Your task to perform on an android device: delete a single message in the gmail app Image 0: 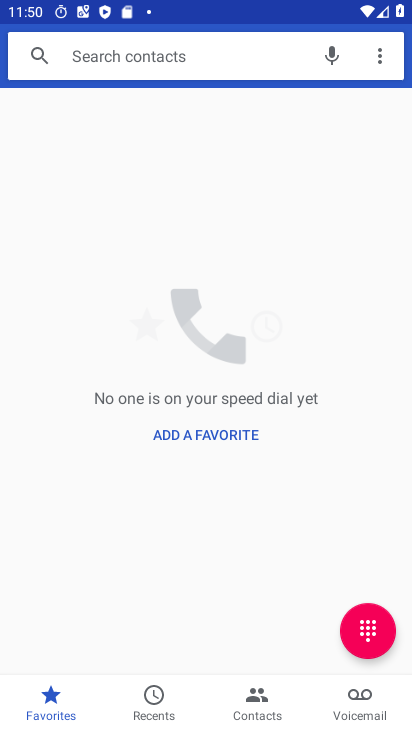
Step 0: press home button
Your task to perform on an android device: delete a single message in the gmail app Image 1: 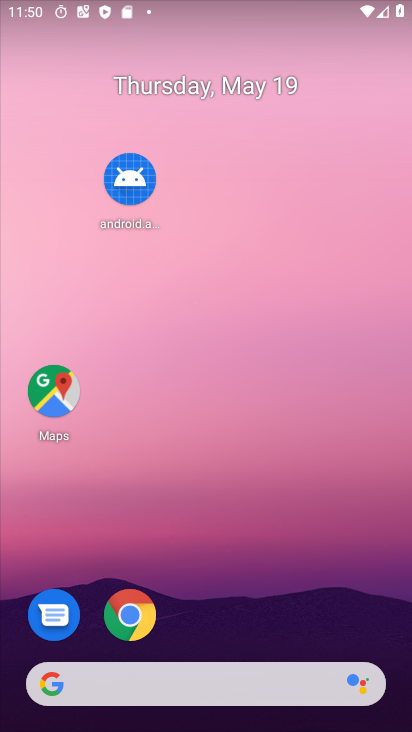
Step 1: drag from (254, 613) to (232, 234)
Your task to perform on an android device: delete a single message in the gmail app Image 2: 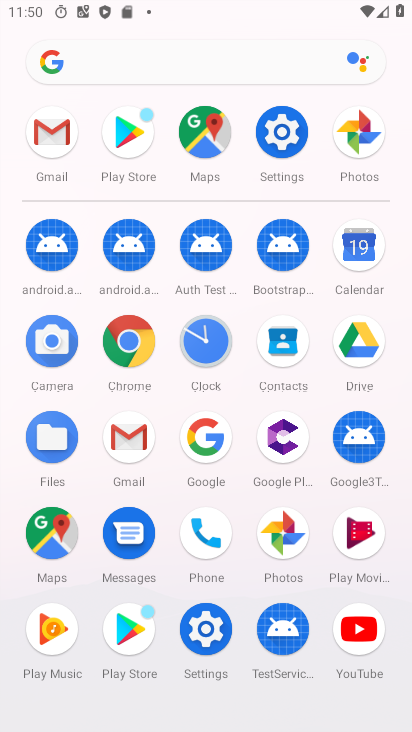
Step 2: click (128, 434)
Your task to perform on an android device: delete a single message in the gmail app Image 3: 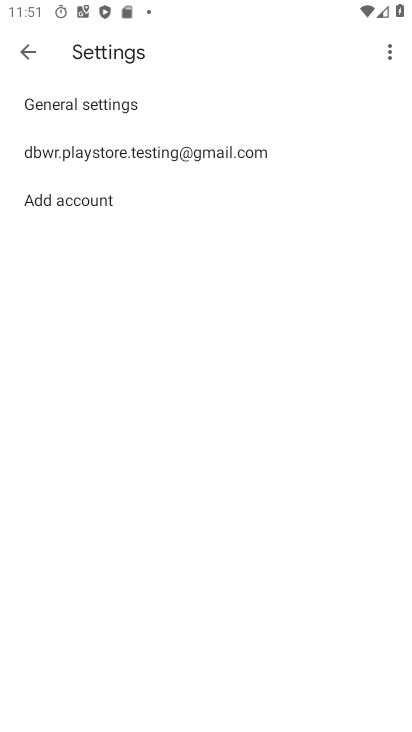
Step 3: click (24, 50)
Your task to perform on an android device: delete a single message in the gmail app Image 4: 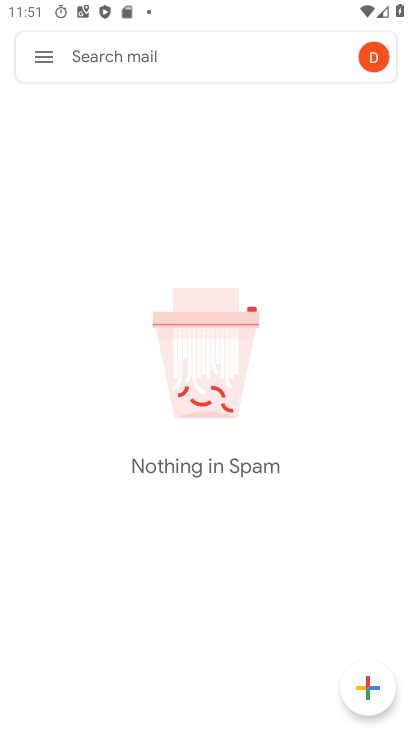
Step 4: task complete